Your task to perform on an android device: toggle data saver in the chrome app Image 0: 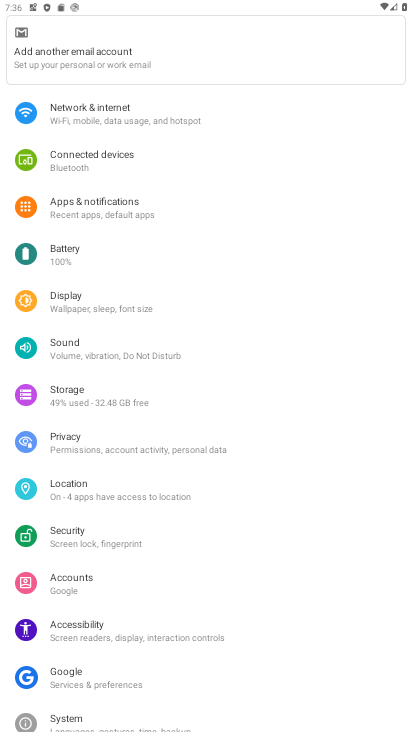
Step 0: press home button
Your task to perform on an android device: toggle data saver in the chrome app Image 1: 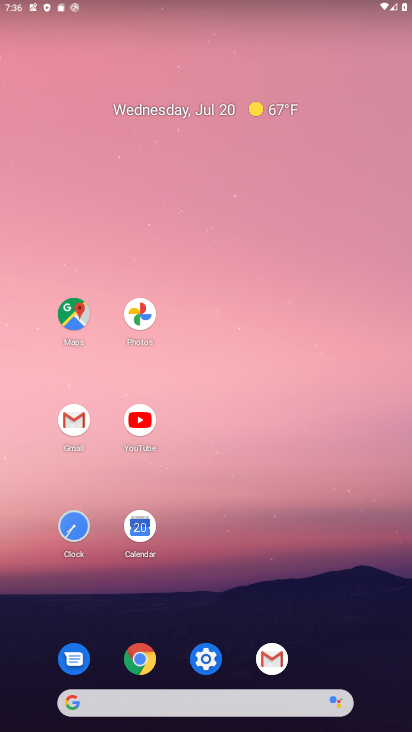
Step 1: click (142, 656)
Your task to perform on an android device: toggle data saver in the chrome app Image 2: 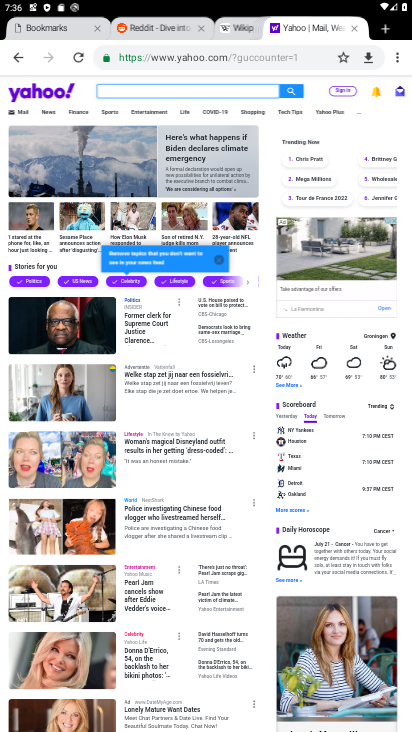
Step 2: click (398, 54)
Your task to perform on an android device: toggle data saver in the chrome app Image 3: 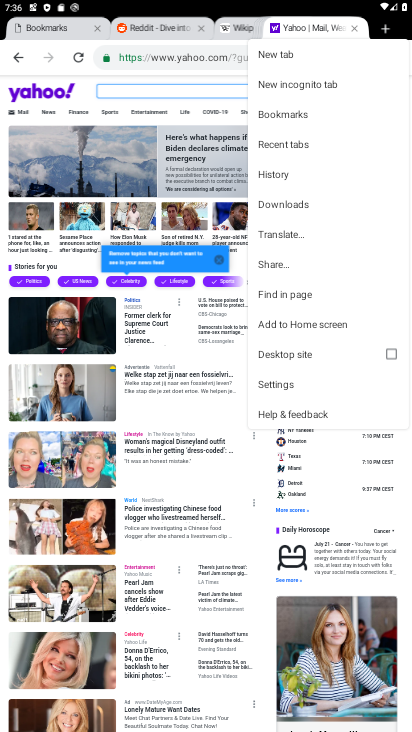
Step 3: click (281, 381)
Your task to perform on an android device: toggle data saver in the chrome app Image 4: 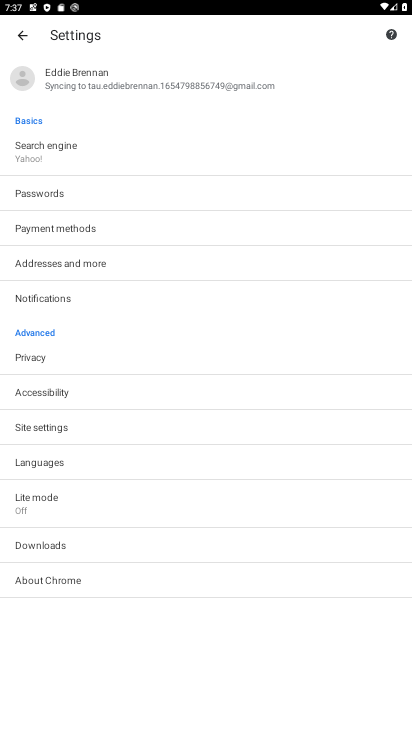
Step 4: click (43, 495)
Your task to perform on an android device: toggle data saver in the chrome app Image 5: 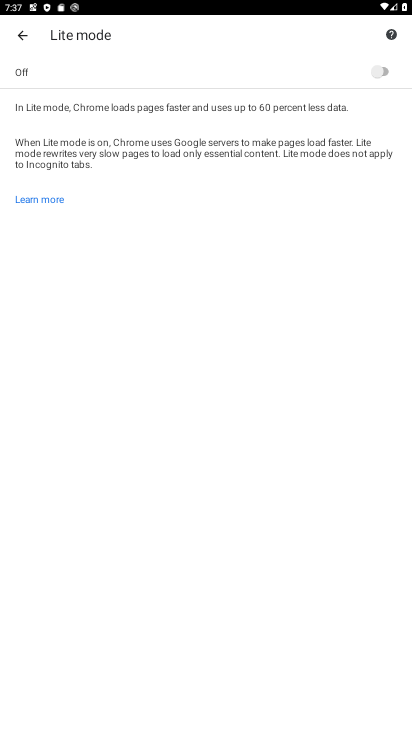
Step 5: click (374, 75)
Your task to perform on an android device: toggle data saver in the chrome app Image 6: 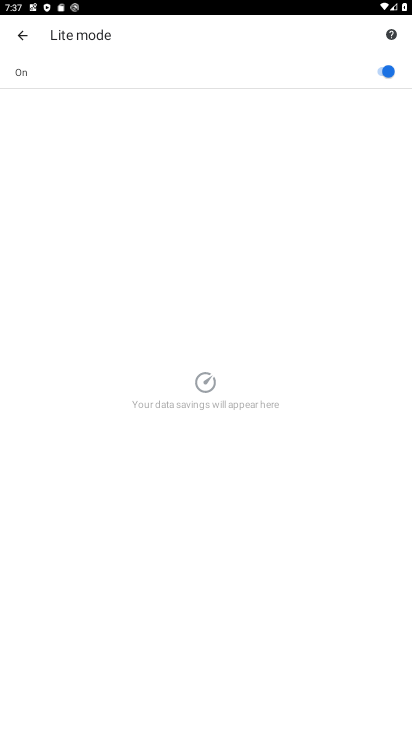
Step 6: task complete